Your task to perform on an android device: Clear all items from cart on target. Image 0: 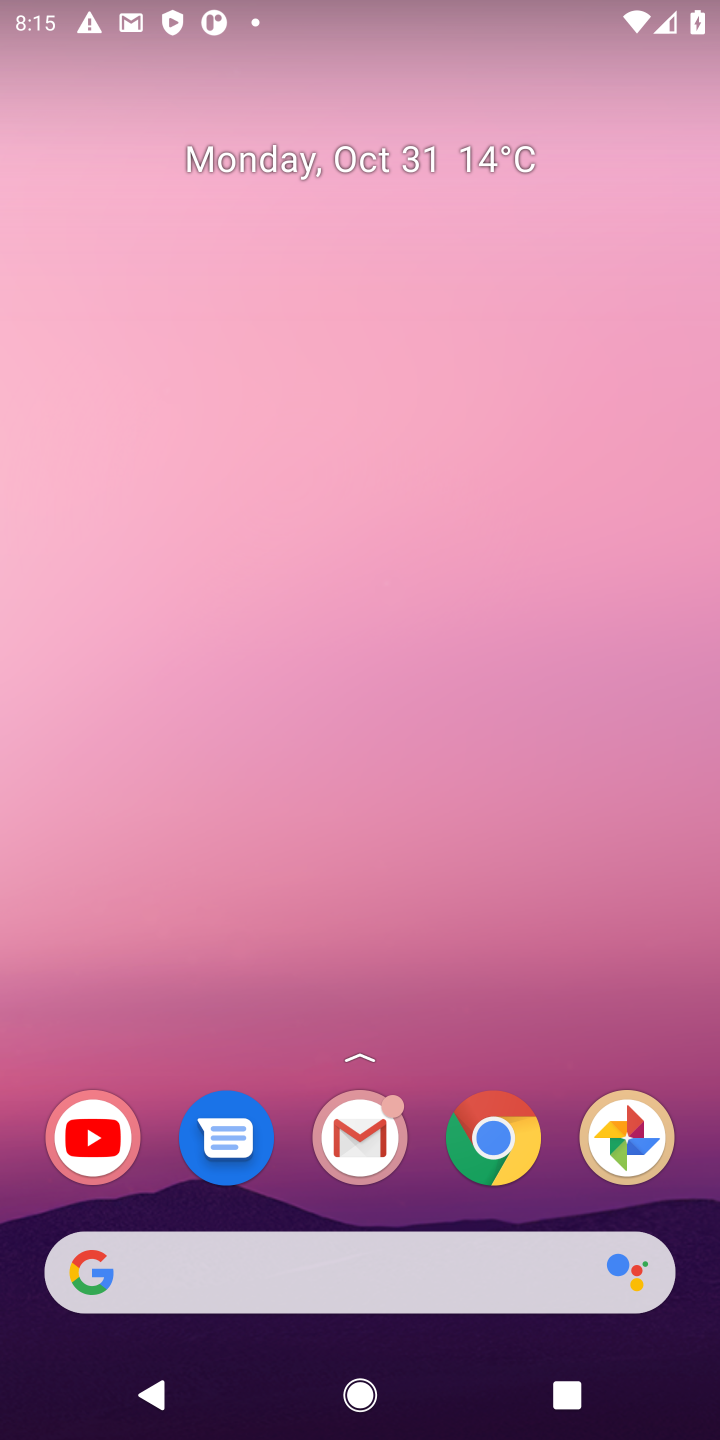
Step 0: click (485, 1152)
Your task to perform on an android device: Clear all items from cart on target. Image 1: 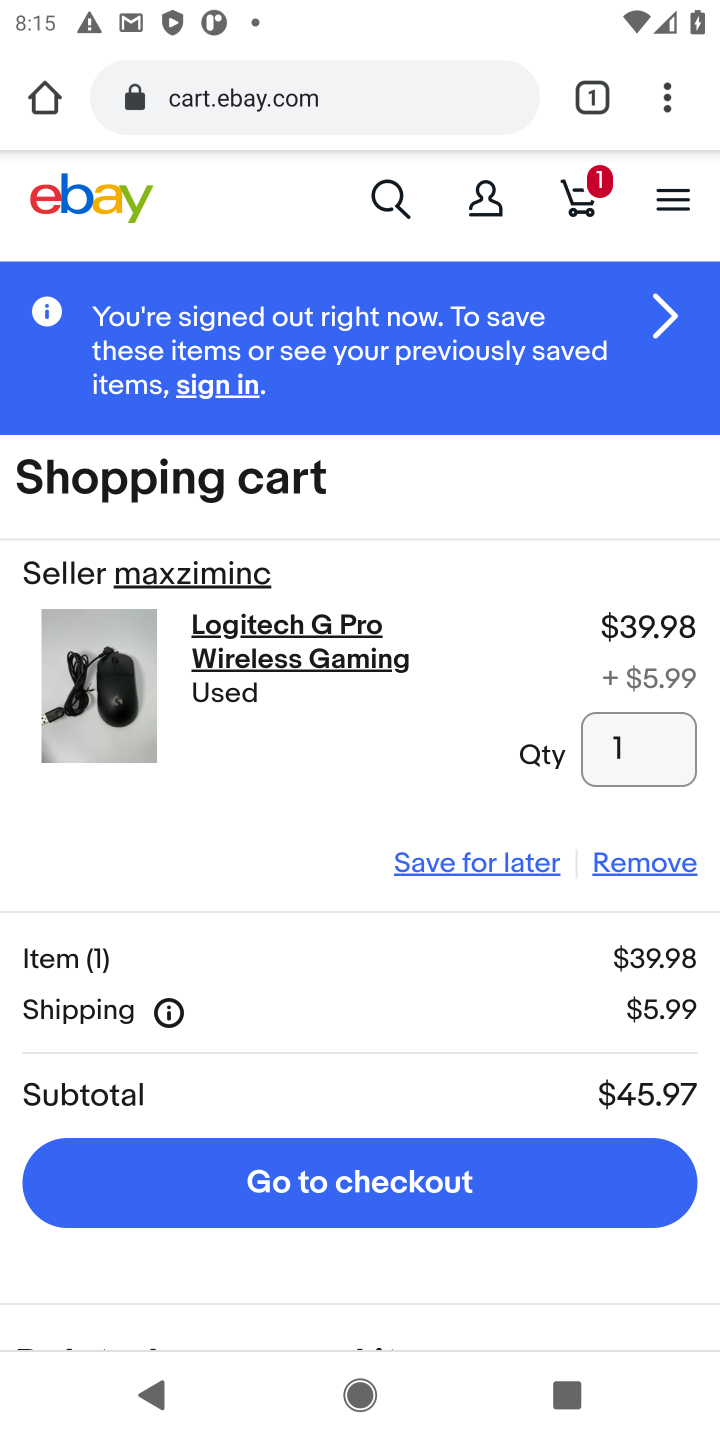
Step 1: click (253, 107)
Your task to perform on an android device: Clear all items from cart on target. Image 2: 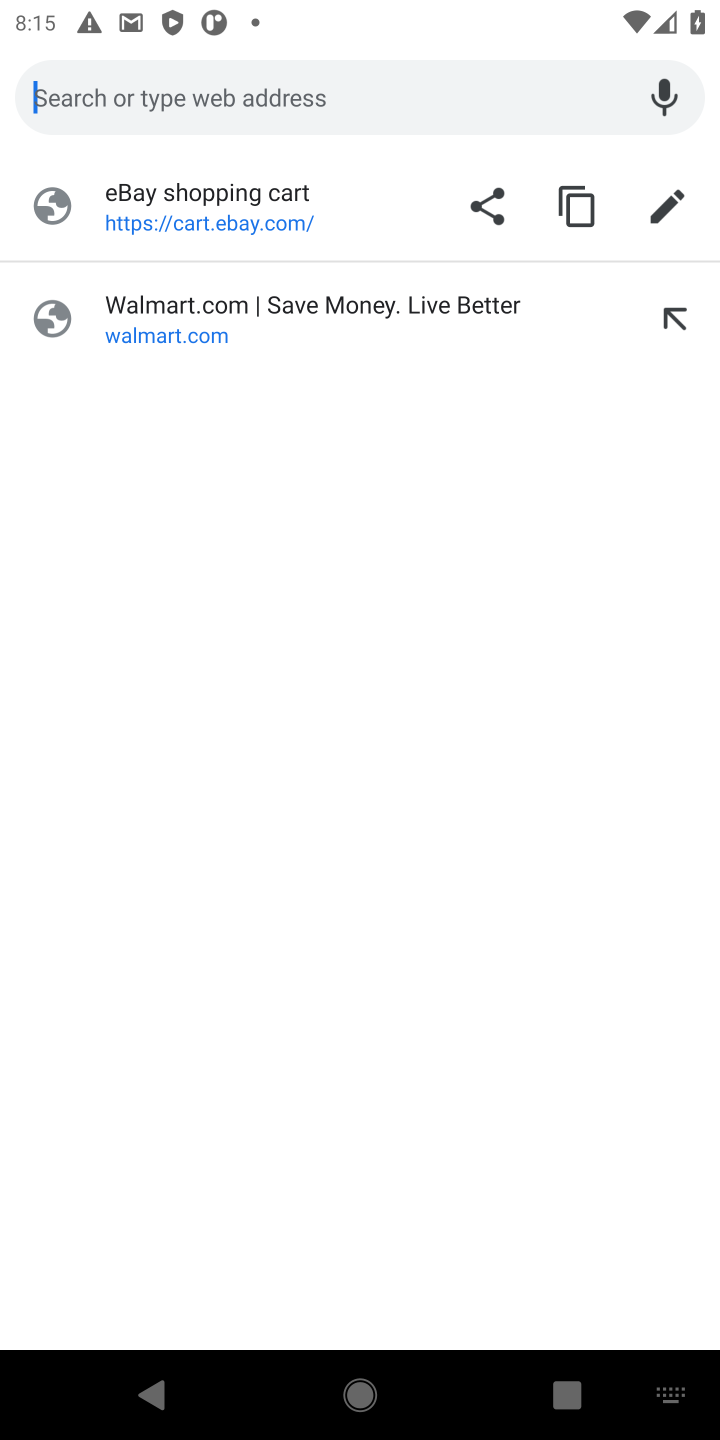
Step 2: type "target"
Your task to perform on an android device: Clear all items from cart on target. Image 3: 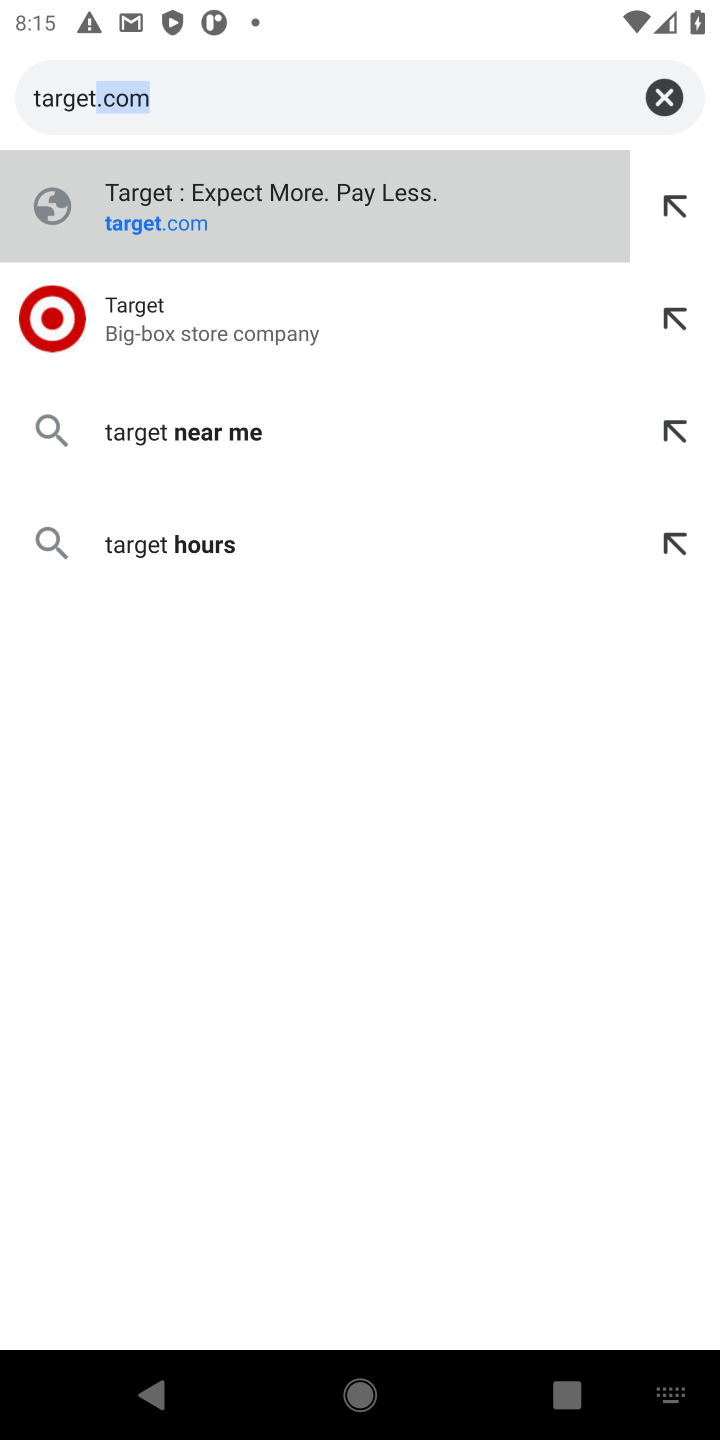
Step 3: type ""
Your task to perform on an android device: Clear all items from cart on target. Image 4: 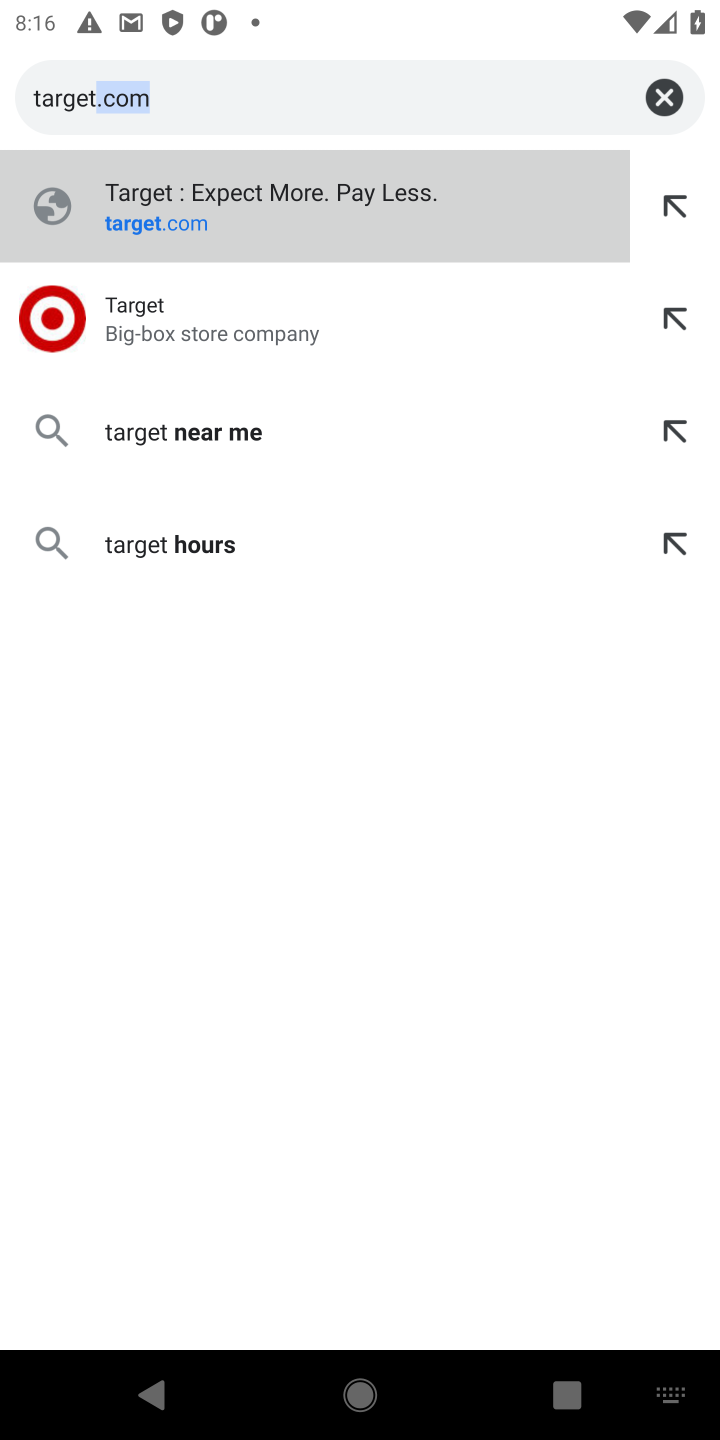
Step 4: click (237, 219)
Your task to perform on an android device: Clear all items from cart on target. Image 5: 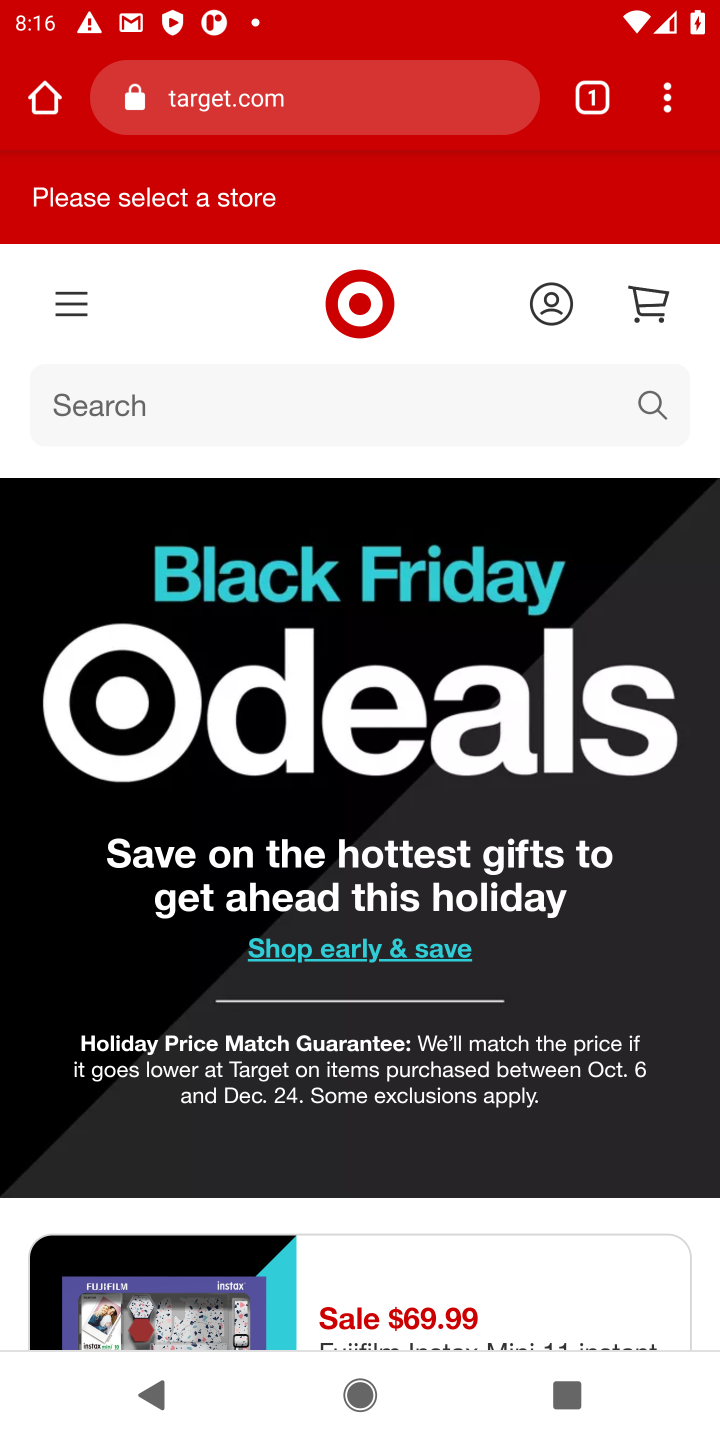
Step 5: drag from (249, 1043) to (368, 436)
Your task to perform on an android device: Clear all items from cart on target. Image 6: 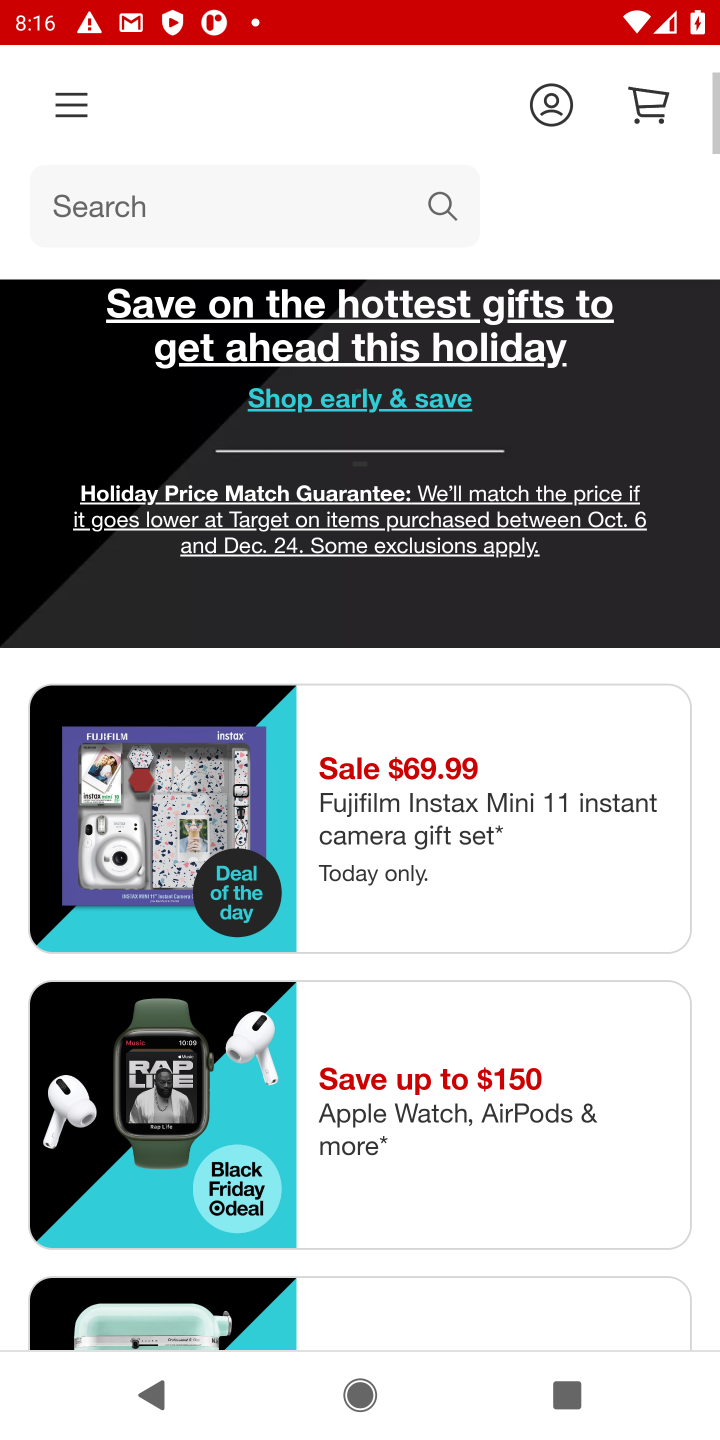
Step 6: drag from (368, 432) to (367, 1201)
Your task to perform on an android device: Clear all items from cart on target. Image 7: 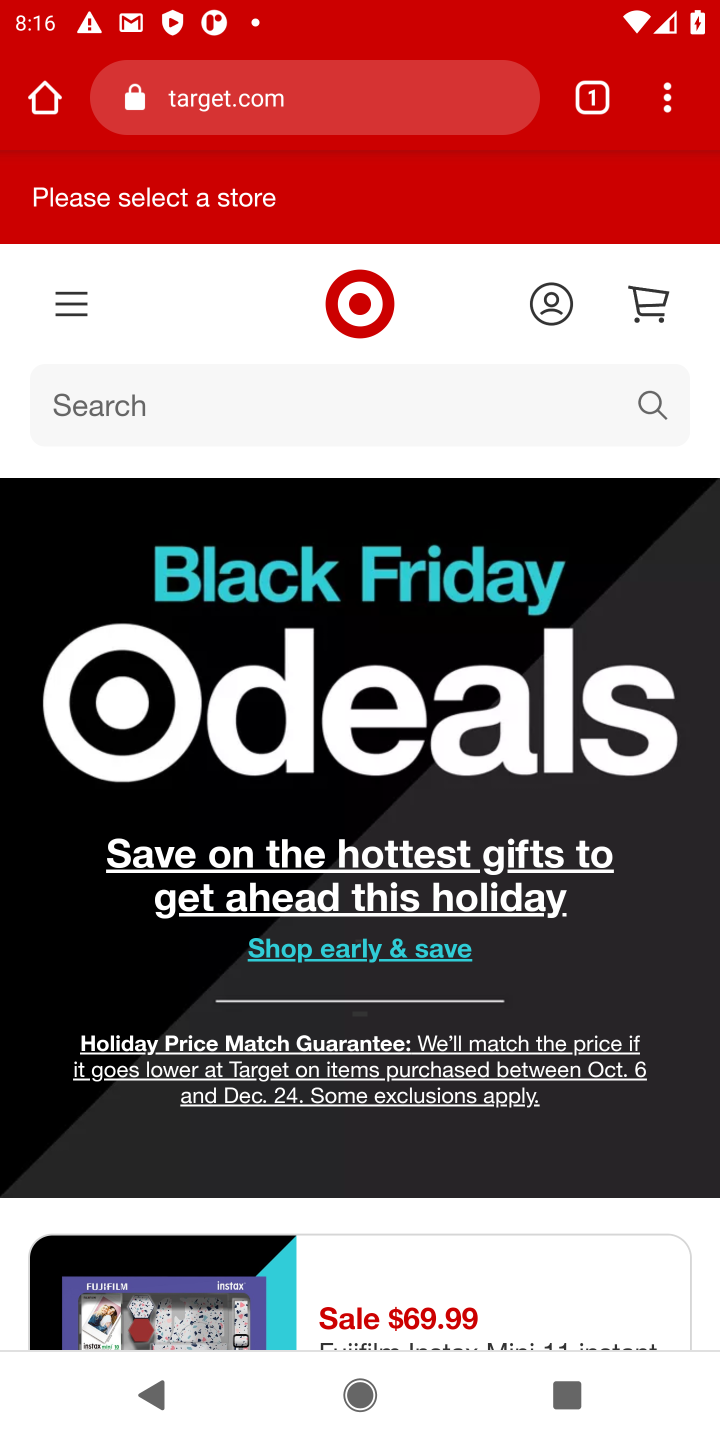
Step 7: click (654, 295)
Your task to perform on an android device: Clear all items from cart on target. Image 8: 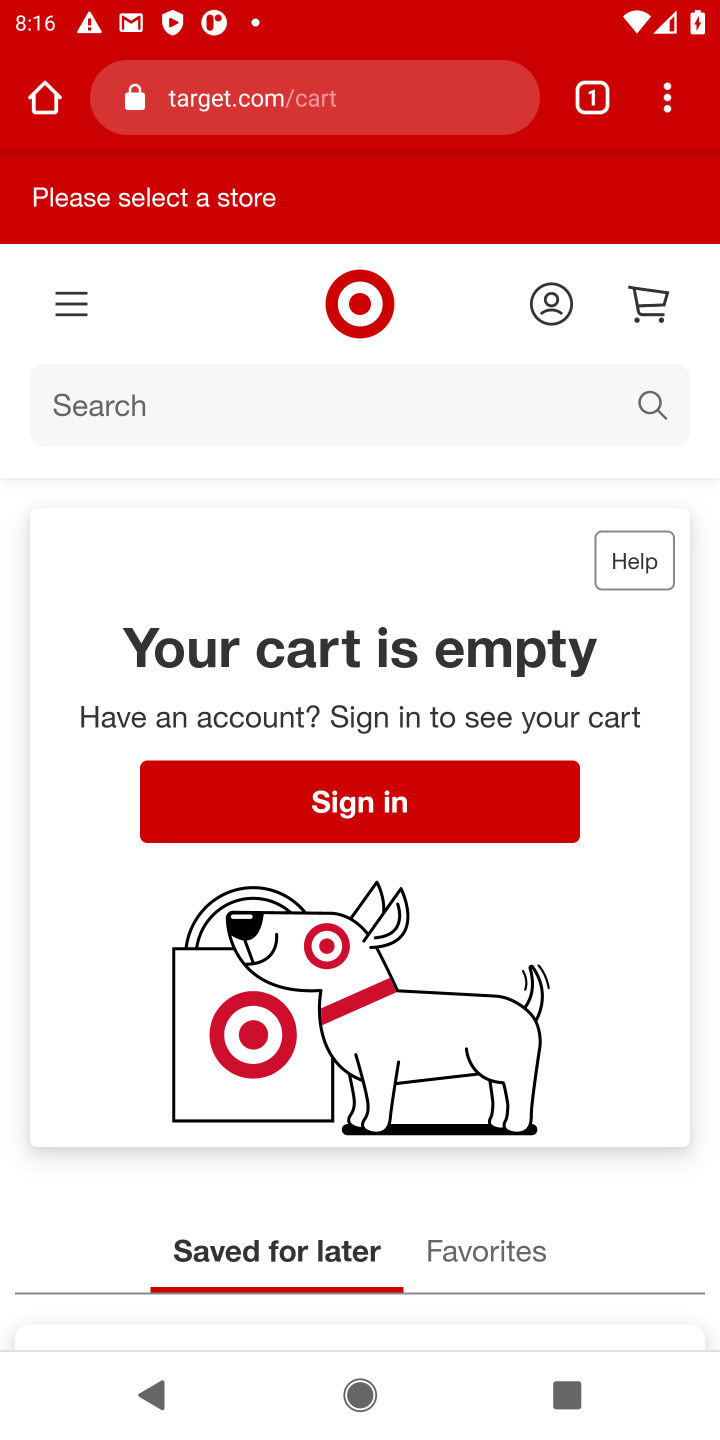
Step 8: task complete